Your task to perform on an android device: turn off javascript in the chrome app Image 0: 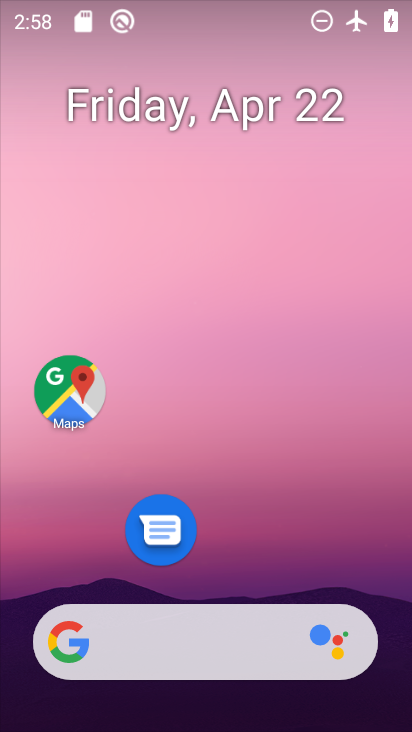
Step 0: drag from (241, 554) to (191, 56)
Your task to perform on an android device: turn off javascript in the chrome app Image 1: 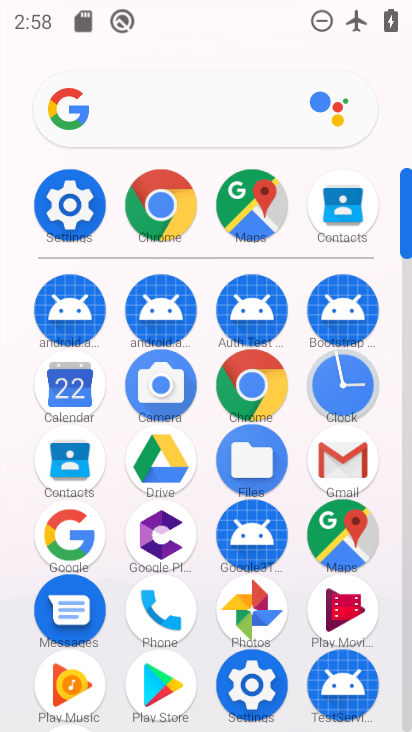
Step 1: click (158, 207)
Your task to perform on an android device: turn off javascript in the chrome app Image 2: 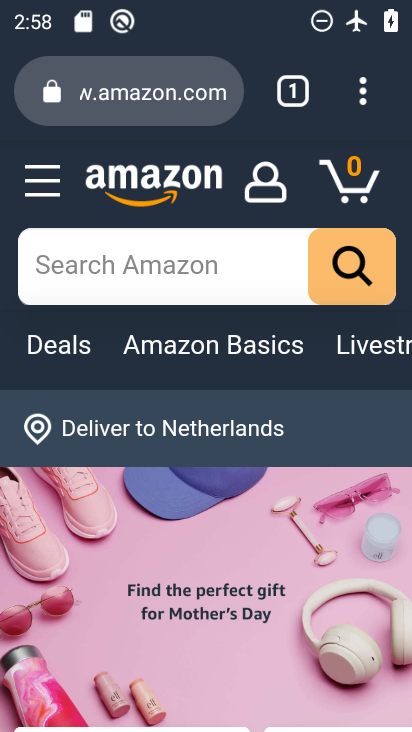
Step 2: click (359, 105)
Your task to perform on an android device: turn off javascript in the chrome app Image 3: 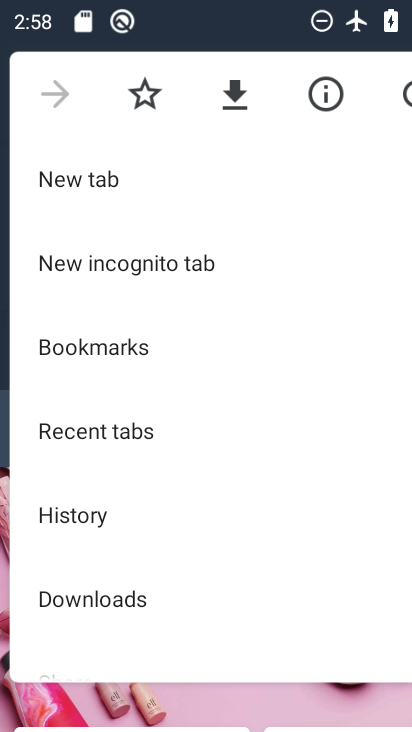
Step 3: drag from (190, 527) to (193, 95)
Your task to perform on an android device: turn off javascript in the chrome app Image 4: 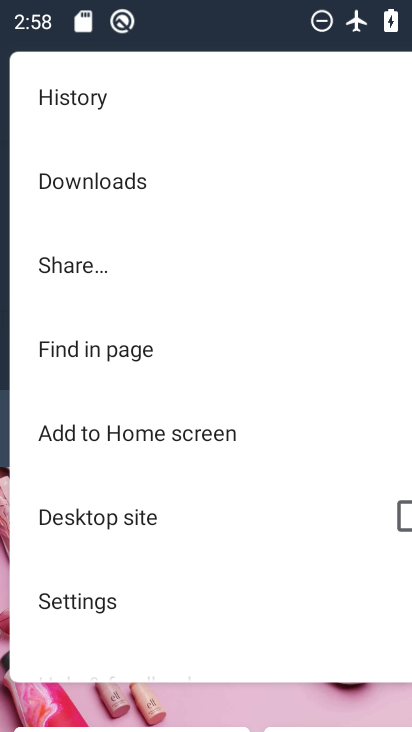
Step 4: drag from (223, 548) to (170, 26)
Your task to perform on an android device: turn off javascript in the chrome app Image 5: 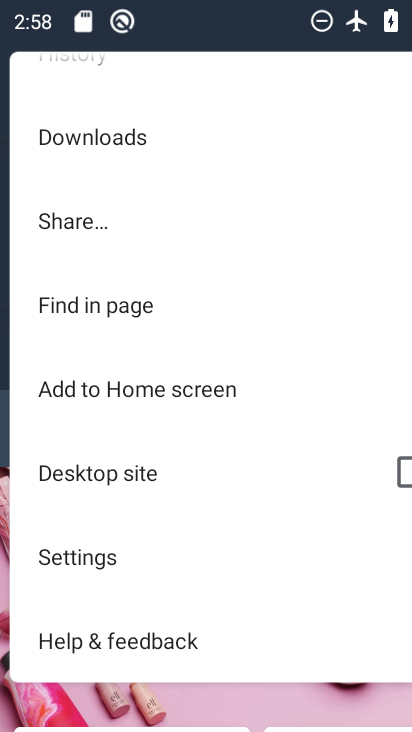
Step 5: click (78, 552)
Your task to perform on an android device: turn off javascript in the chrome app Image 6: 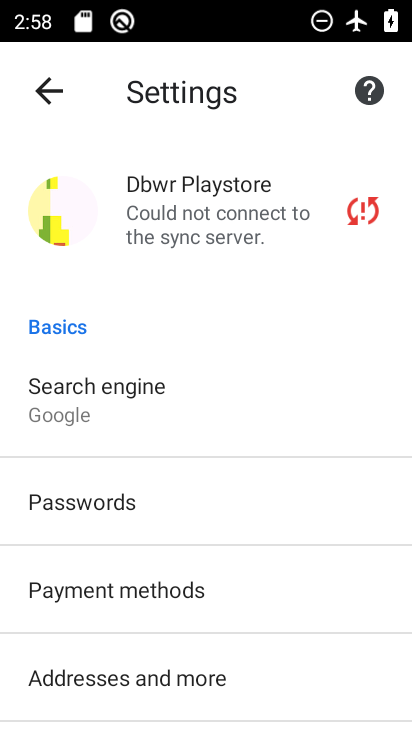
Step 6: drag from (161, 546) to (147, 173)
Your task to perform on an android device: turn off javascript in the chrome app Image 7: 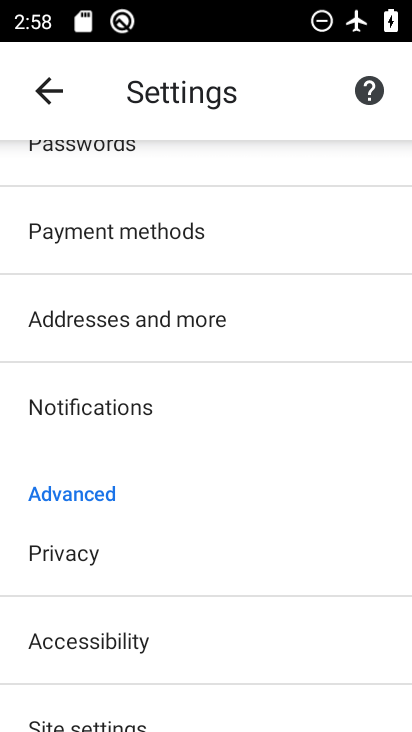
Step 7: drag from (175, 585) to (128, 188)
Your task to perform on an android device: turn off javascript in the chrome app Image 8: 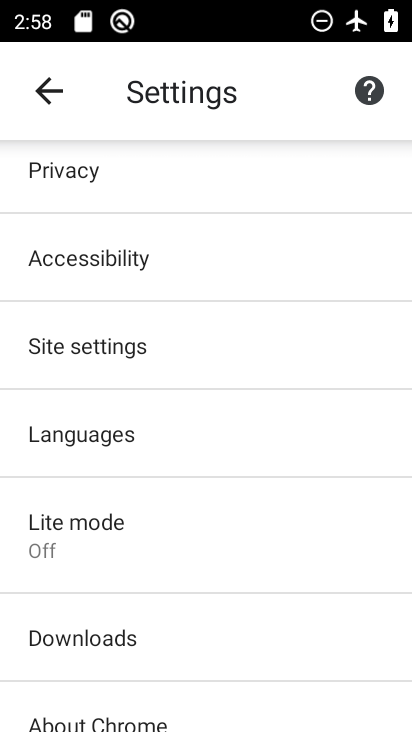
Step 8: click (117, 345)
Your task to perform on an android device: turn off javascript in the chrome app Image 9: 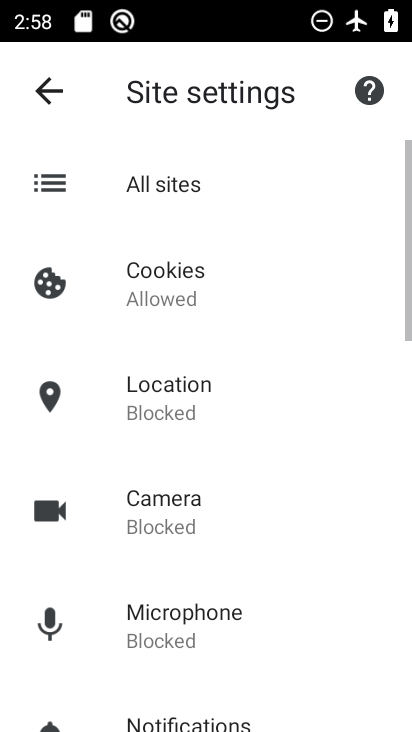
Step 9: drag from (224, 502) to (208, 112)
Your task to perform on an android device: turn off javascript in the chrome app Image 10: 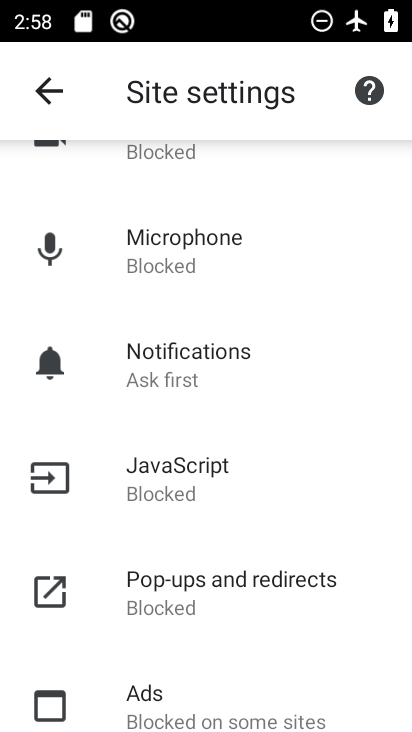
Step 10: click (191, 469)
Your task to perform on an android device: turn off javascript in the chrome app Image 11: 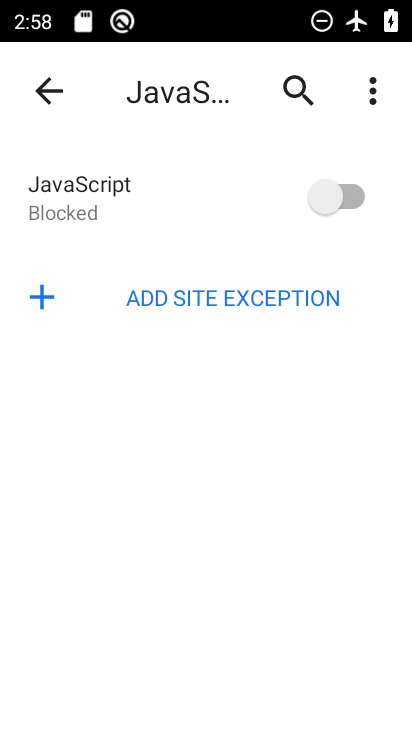
Step 11: task complete